Your task to perform on an android device: What's the weather today? Image 0: 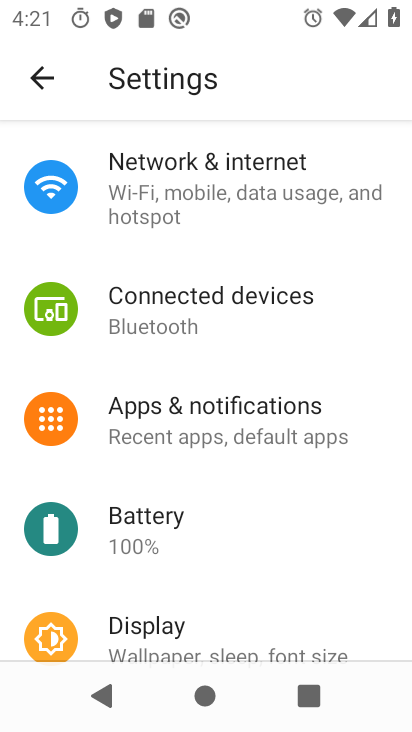
Step 0: press home button
Your task to perform on an android device: What's the weather today? Image 1: 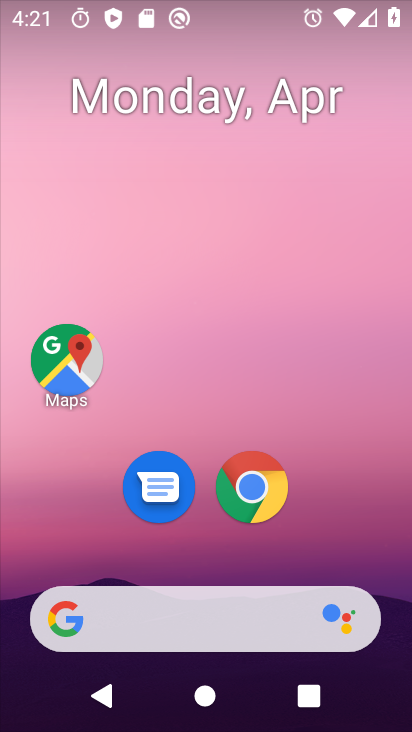
Step 1: click (214, 627)
Your task to perform on an android device: What's the weather today? Image 2: 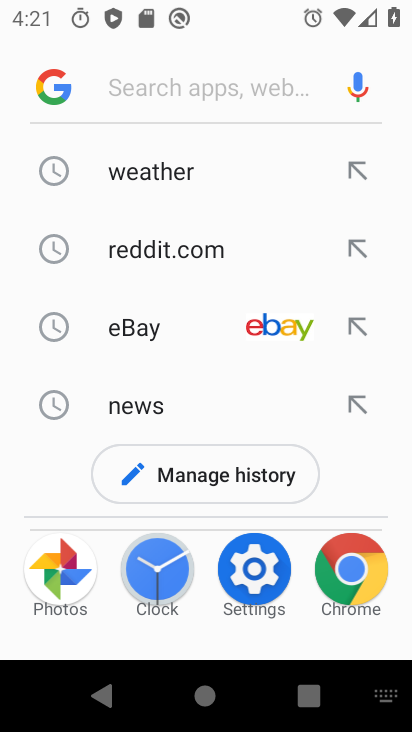
Step 2: click (175, 174)
Your task to perform on an android device: What's the weather today? Image 3: 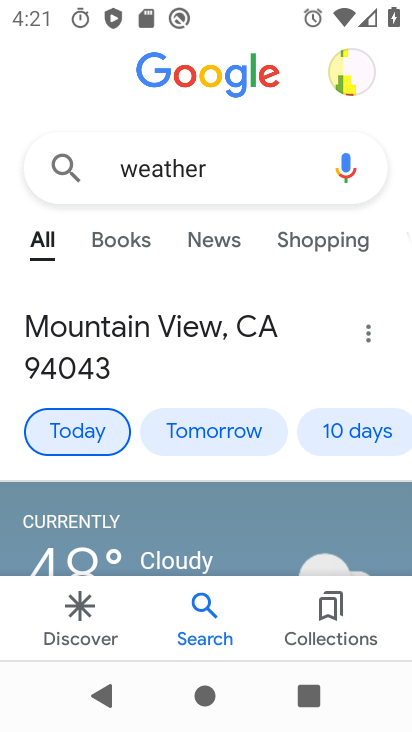
Step 3: task complete